Your task to perform on an android device: turn off airplane mode Image 0: 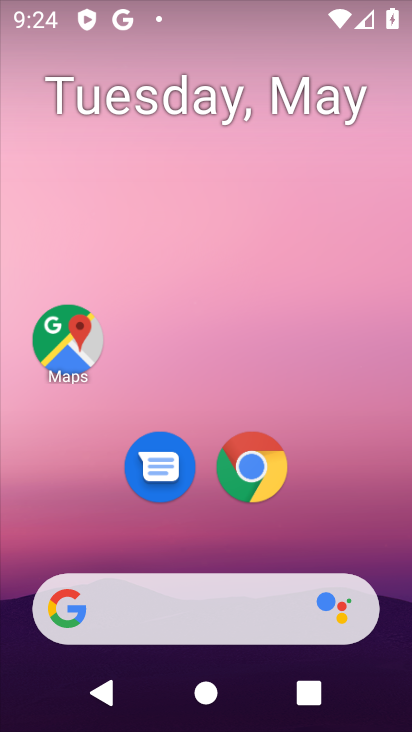
Step 0: drag from (347, 541) to (233, 20)
Your task to perform on an android device: turn off airplane mode Image 1: 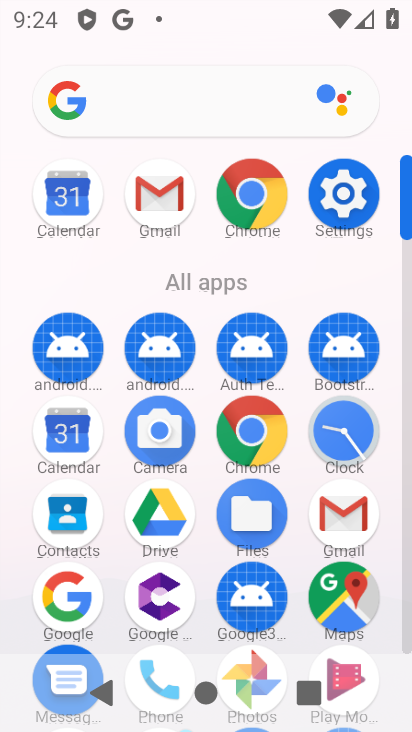
Step 1: drag from (9, 603) to (28, 230)
Your task to perform on an android device: turn off airplane mode Image 2: 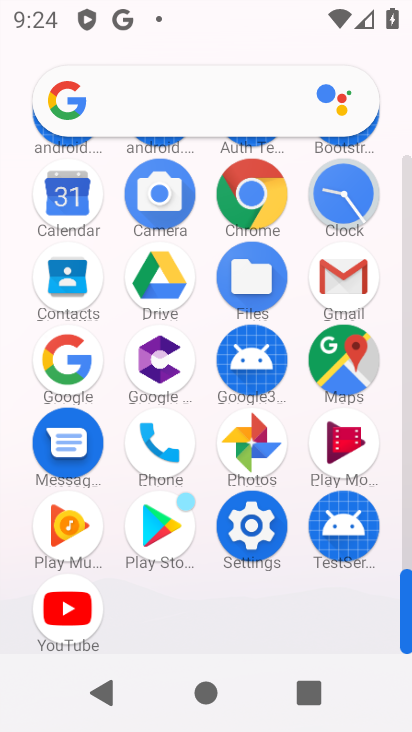
Step 2: click (251, 523)
Your task to perform on an android device: turn off airplane mode Image 3: 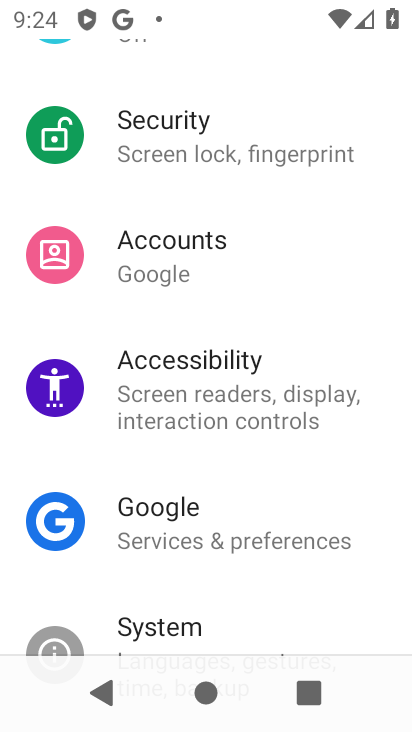
Step 3: drag from (272, 127) to (247, 573)
Your task to perform on an android device: turn off airplane mode Image 4: 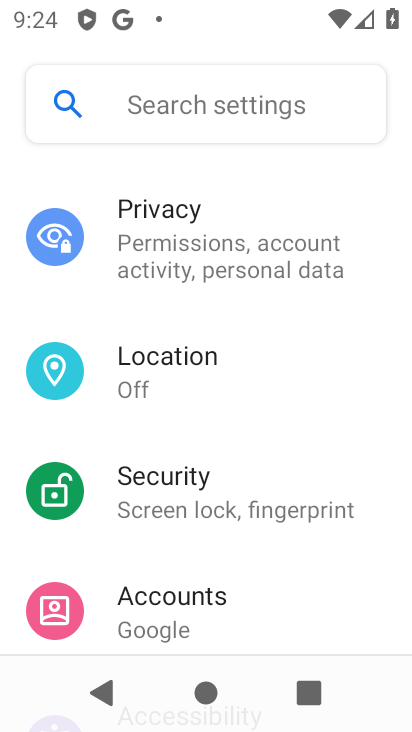
Step 4: drag from (285, 200) to (271, 631)
Your task to perform on an android device: turn off airplane mode Image 5: 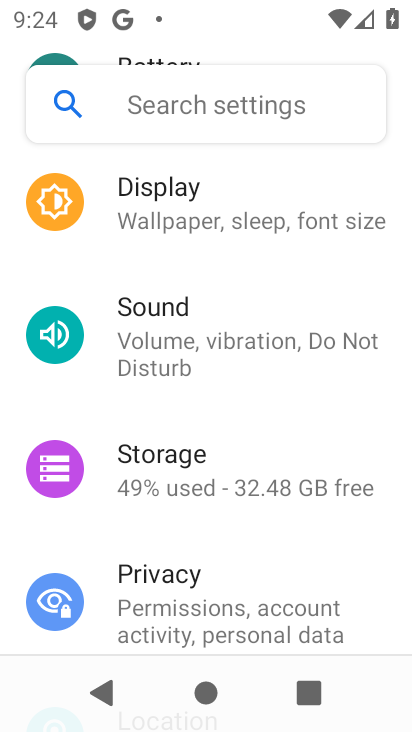
Step 5: drag from (287, 229) to (268, 627)
Your task to perform on an android device: turn off airplane mode Image 6: 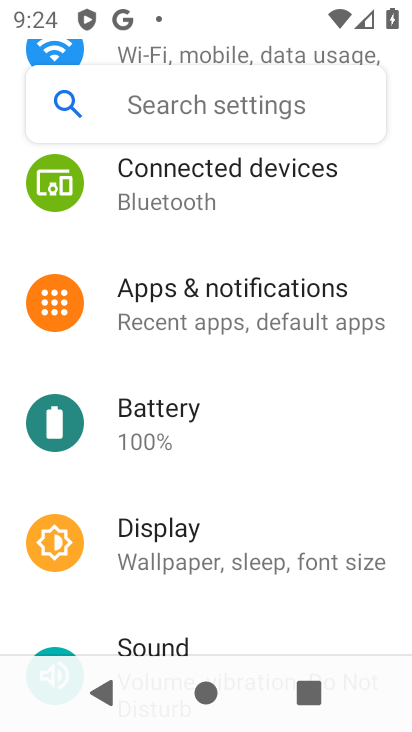
Step 6: drag from (290, 204) to (294, 612)
Your task to perform on an android device: turn off airplane mode Image 7: 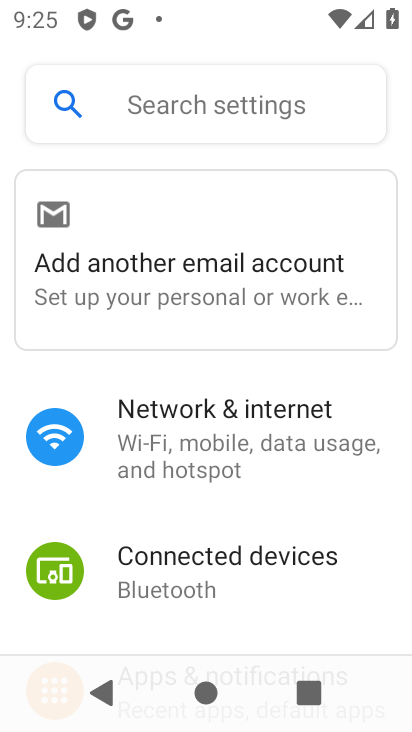
Step 7: click (262, 442)
Your task to perform on an android device: turn off airplane mode Image 8: 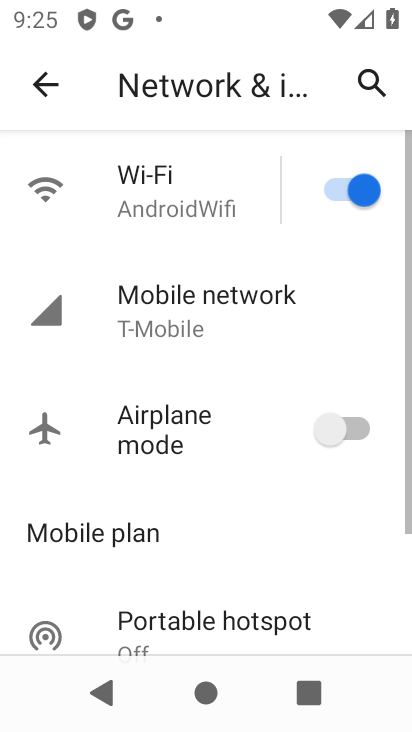
Step 8: drag from (257, 553) to (250, 213)
Your task to perform on an android device: turn off airplane mode Image 9: 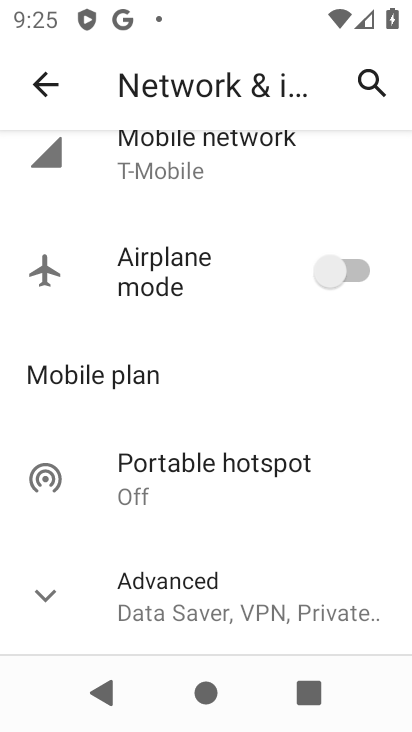
Step 9: click (41, 592)
Your task to perform on an android device: turn off airplane mode Image 10: 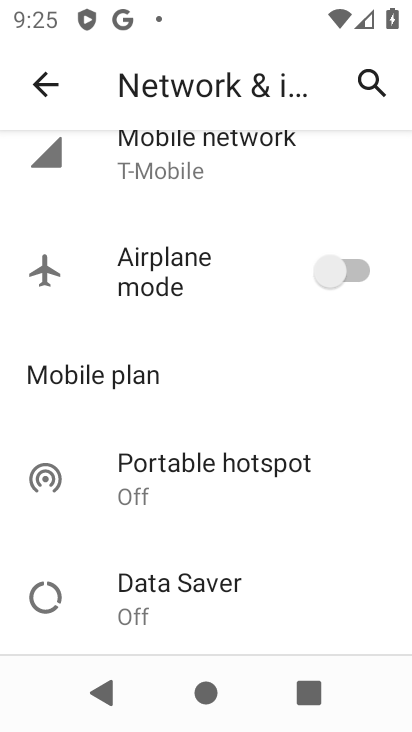
Step 10: task complete